Your task to perform on an android device: Set the phone to "Do not disturb". Image 0: 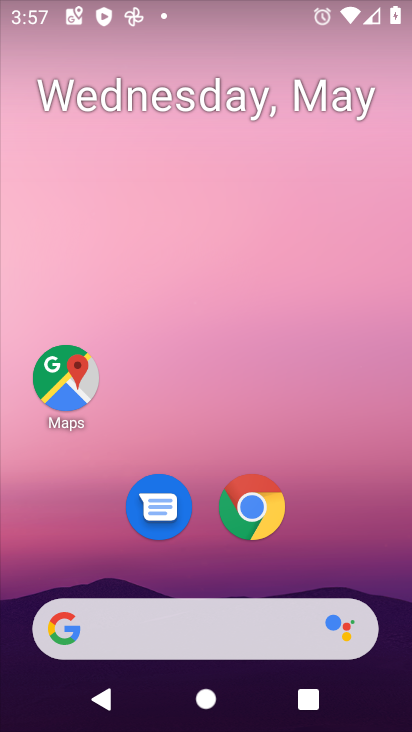
Step 0: drag from (337, 522) to (231, 71)
Your task to perform on an android device: Set the phone to "Do not disturb". Image 1: 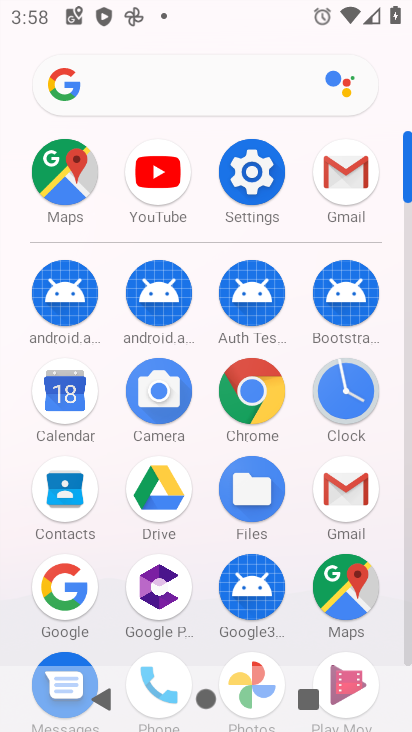
Step 1: click (266, 174)
Your task to perform on an android device: Set the phone to "Do not disturb". Image 2: 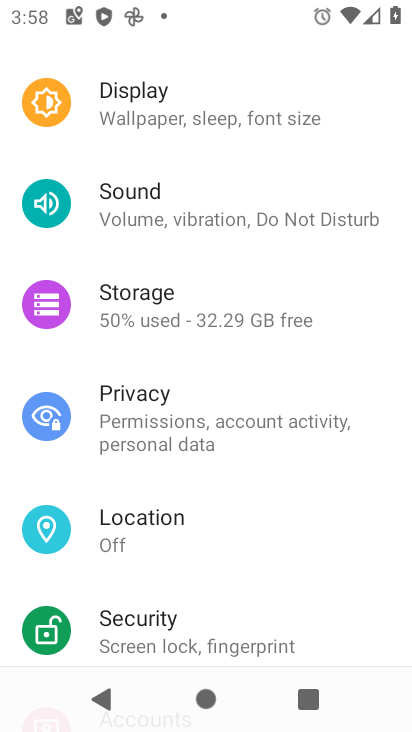
Step 2: click (218, 201)
Your task to perform on an android device: Set the phone to "Do not disturb". Image 3: 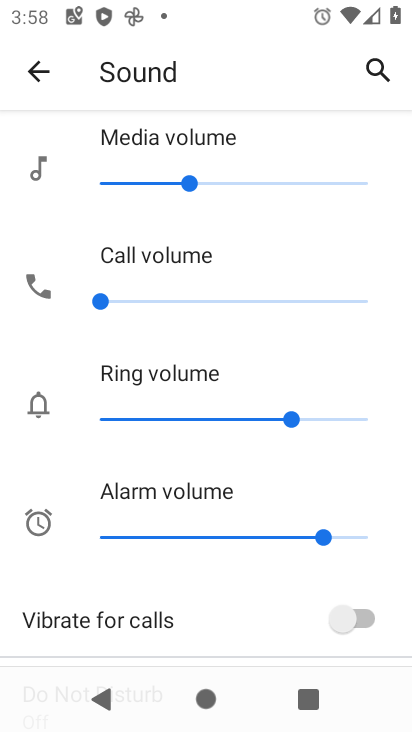
Step 3: drag from (234, 534) to (261, 147)
Your task to perform on an android device: Set the phone to "Do not disturb". Image 4: 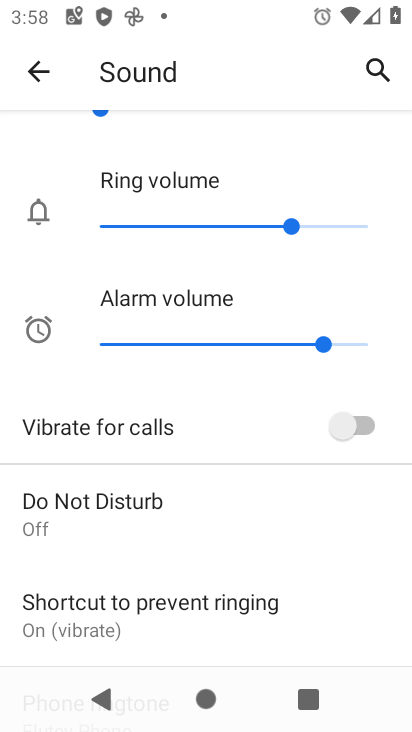
Step 4: click (129, 513)
Your task to perform on an android device: Set the phone to "Do not disturb". Image 5: 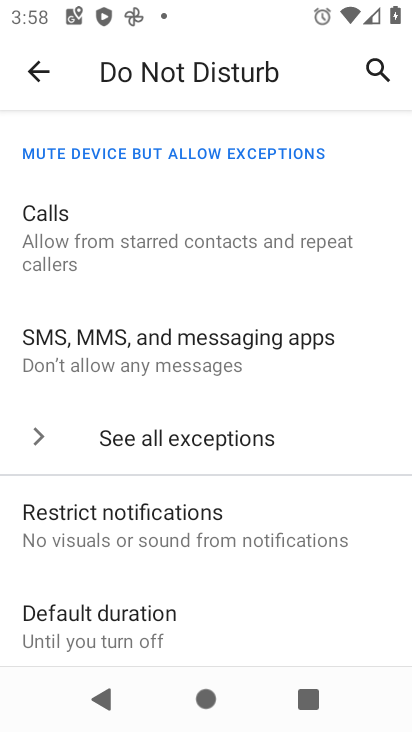
Step 5: drag from (333, 591) to (328, 372)
Your task to perform on an android device: Set the phone to "Do not disturb". Image 6: 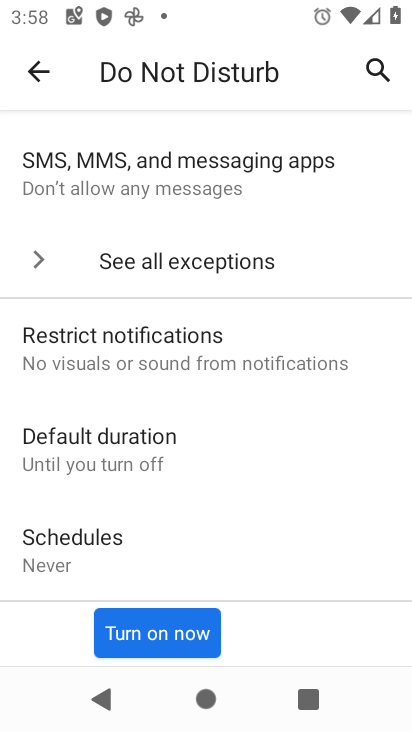
Step 6: click (151, 618)
Your task to perform on an android device: Set the phone to "Do not disturb". Image 7: 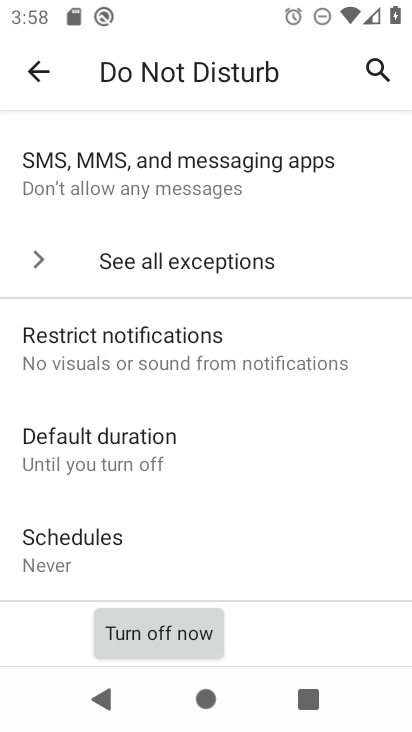
Step 7: task complete